Your task to perform on an android device: find snoozed emails in the gmail app Image 0: 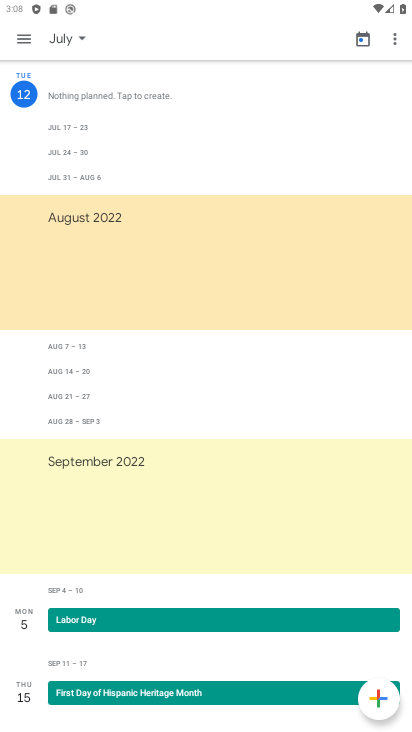
Step 0: press home button
Your task to perform on an android device: find snoozed emails in the gmail app Image 1: 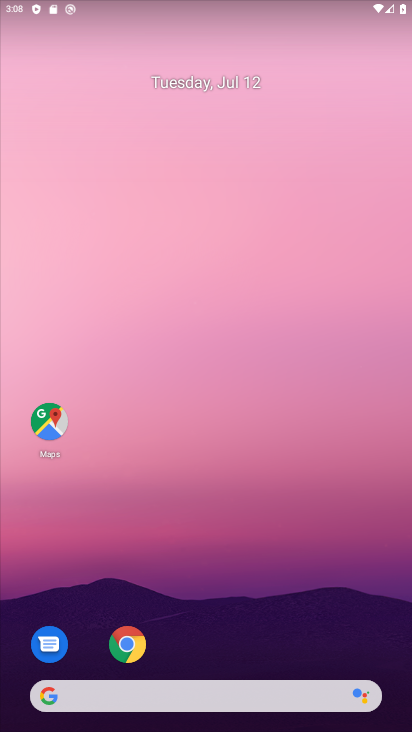
Step 1: drag from (263, 575) to (207, 139)
Your task to perform on an android device: find snoozed emails in the gmail app Image 2: 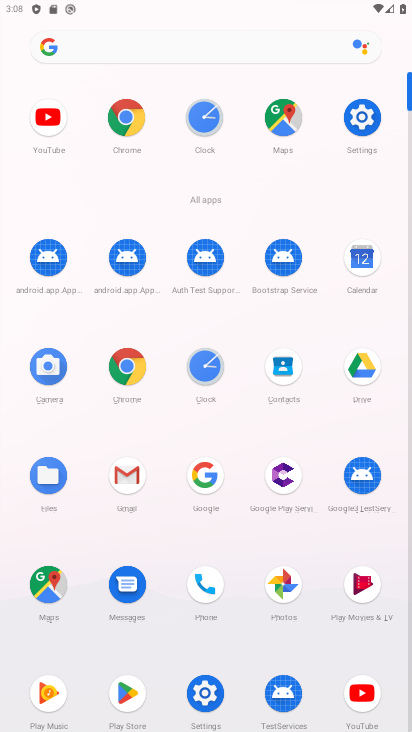
Step 2: click (135, 466)
Your task to perform on an android device: find snoozed emails in the gmail app Image 3: 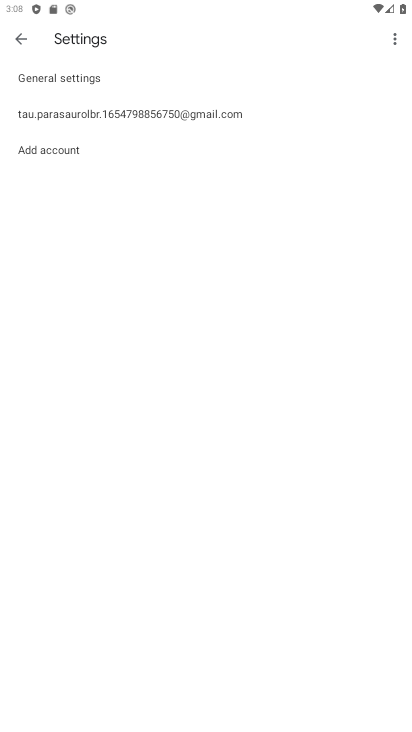
Step 3: click (20, 39)
Your task to perform on an android device: find snoozed emails in the gmail app Image 4: 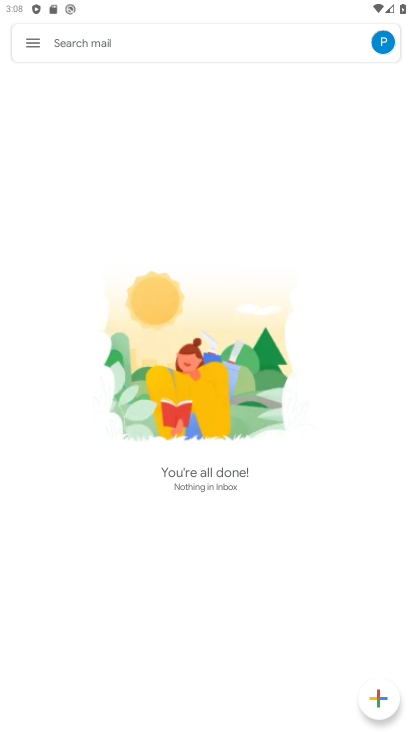
Step 4: click (25, 39)
Your task to perform on an android device: find snoozed emails in the gmail app Image 5: 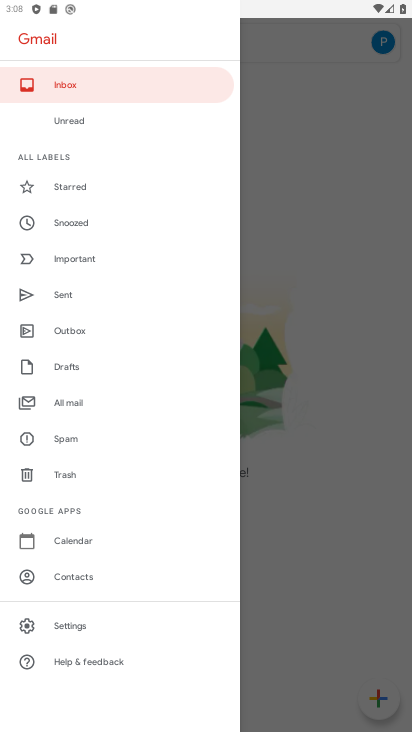
Step 5: click (70, 226)
Your task to perform on an android device: find snoozed emails in the gmail app Image 6: 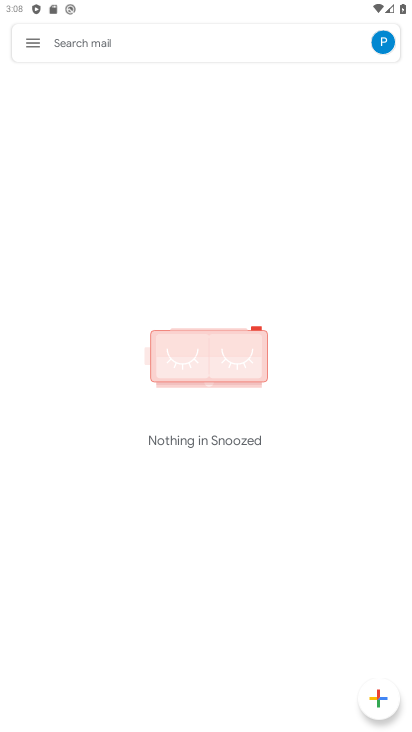
Step 6: task complete